Your task to perform on an android device: turn on sleep mode Image 0: 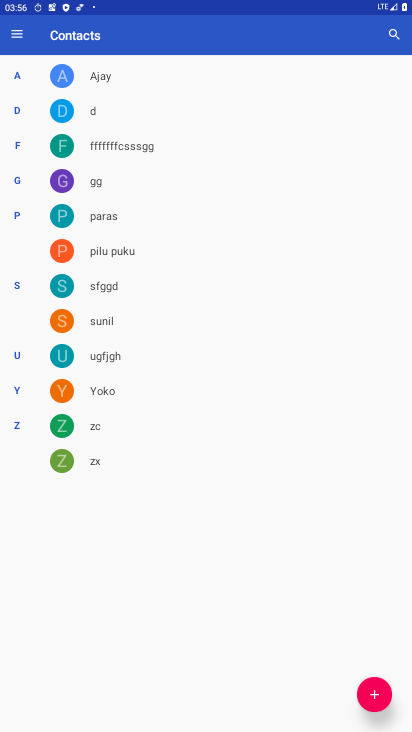
Step 0: press home button
Your task to perform on an android device: turn on sleep mode Image 1: 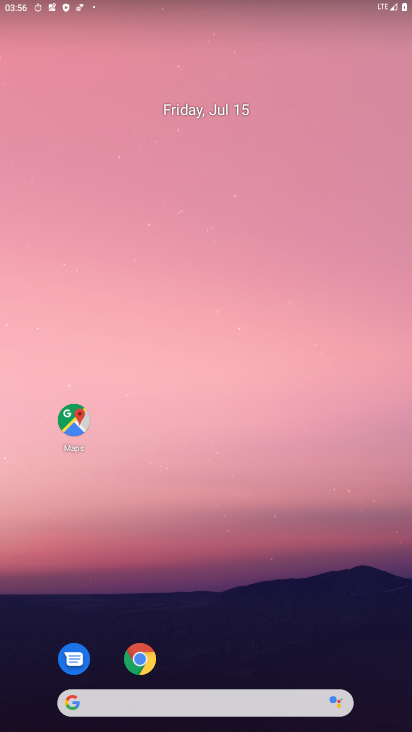
Step 1: drag from (267, 608) to (308, 185)
Your task to perform on an android device: turn on sleep mode Image 2: 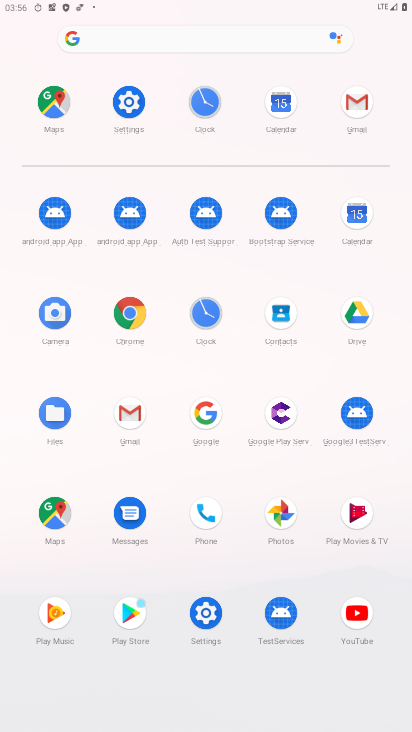
Step 2: click (127, 104)
Your task to perform on an android device: turn on sleep mode Image 3: 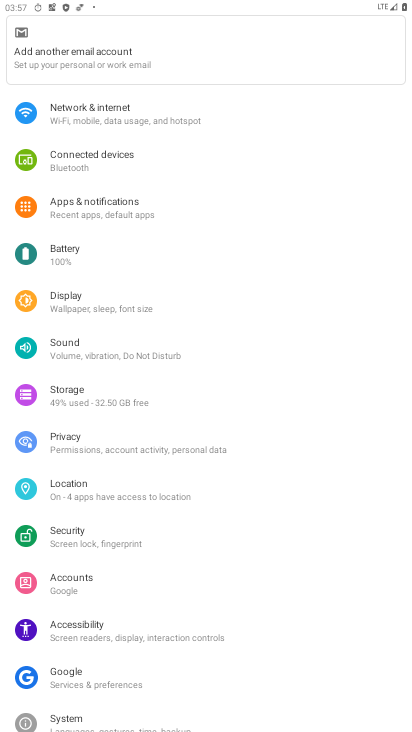
Step 3: click (60, 305)
Your task to perform on an android device: turn on sleep mode Image 4: 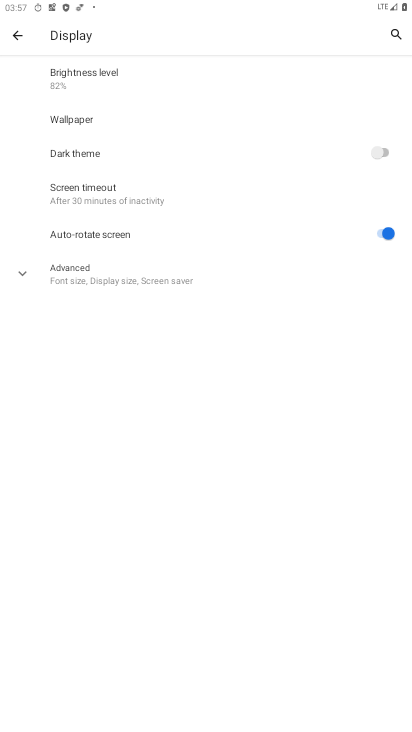
Step 4: click (92, 273)
Your task to perform on an android device: turn on sleep mode Image 5: 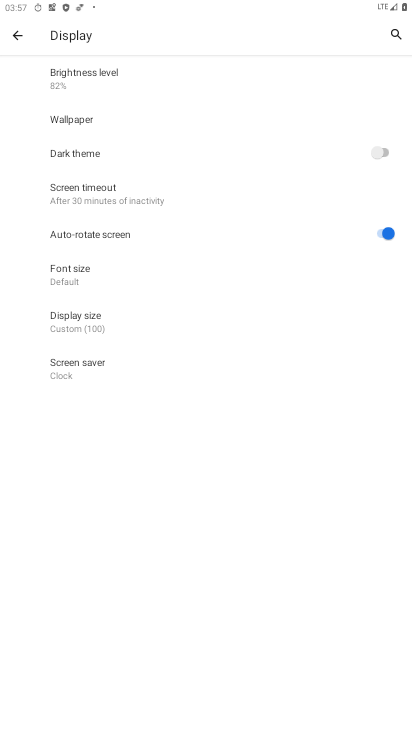
Step 5: task complete